Your task to perform on an android device: Go to settings Image 0: 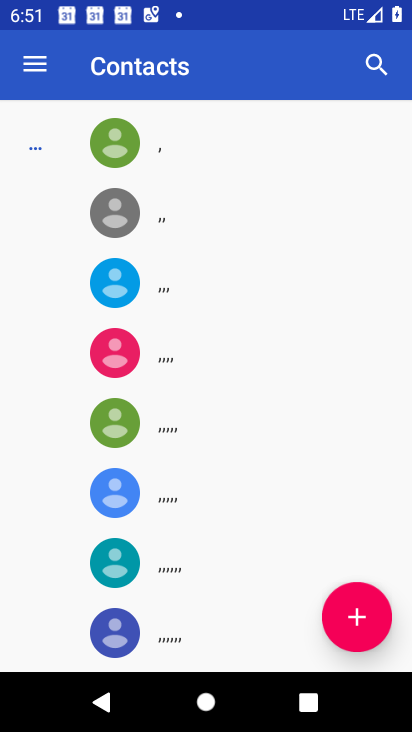
Step 0: press home button
Your task to perform on an android device: Go to settings Image 1: 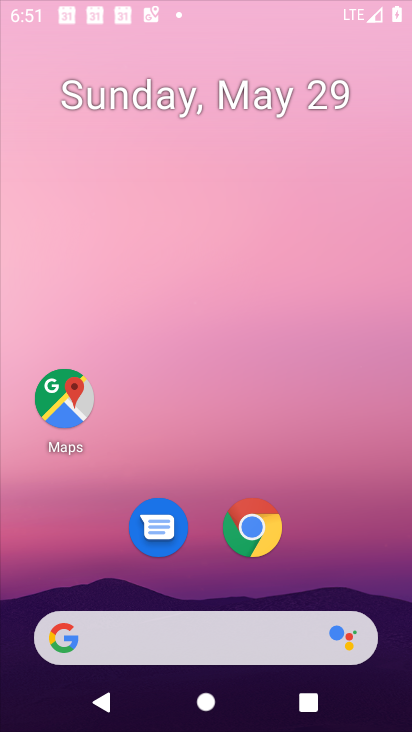
Step 1: drag from (325, 609) to (314, 65)
Your task to perform on an android device: Go to settings Image 2: 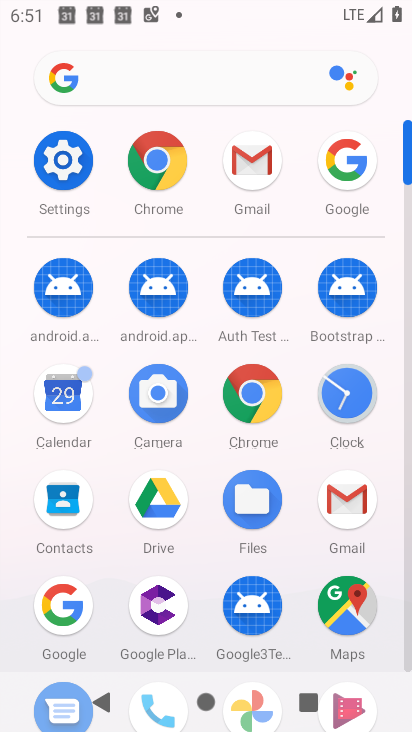
Step 2: click (70, 153)
Your task to perform on an android device: Go to settings Image 3: 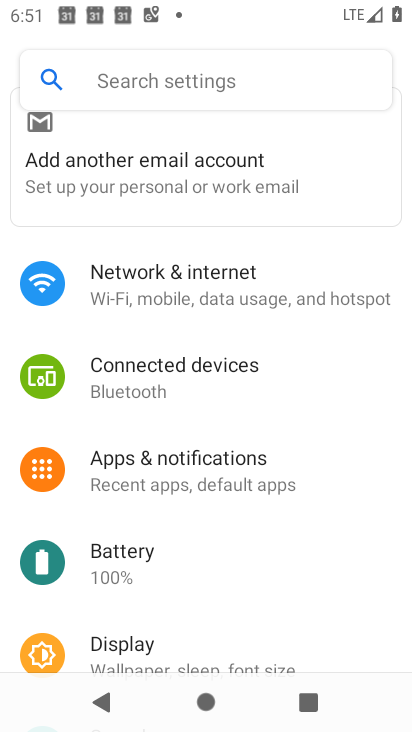
Step 3: task complete